Your task to perform on an android device: Open ESPN.com Image 0: 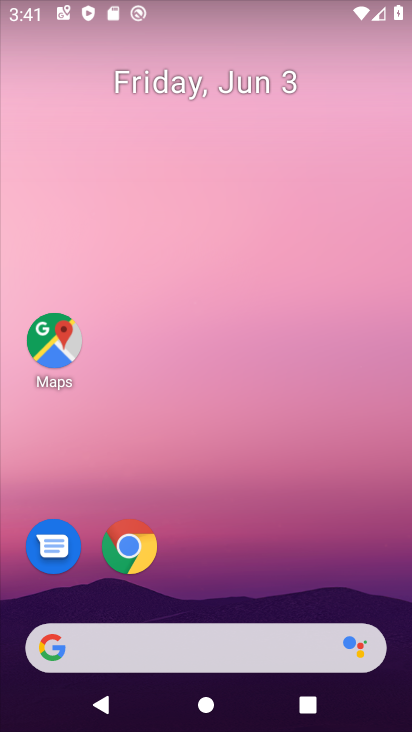
Step 0: click (217, 652)
Your task to perform on an android device: Open ESPN.com Image 1: 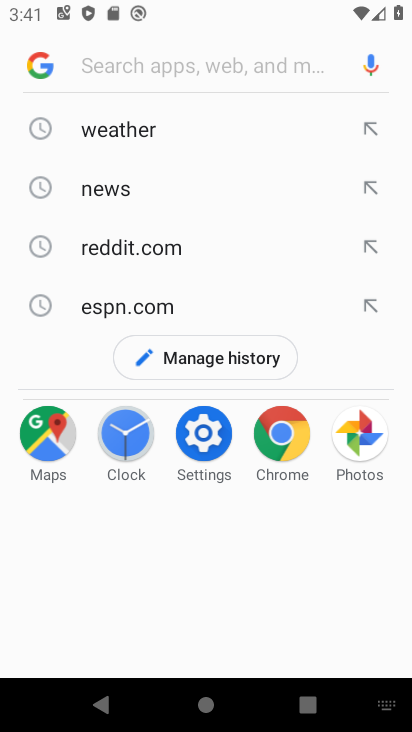
Step 1: click (144, 304)
Your task to perform on an android device: Open ESPN.com Image 2: 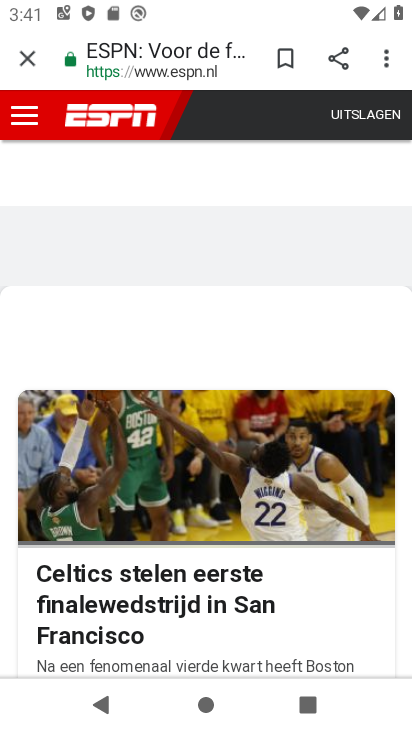
Step 2: task complete